Your task to perform on an android device: turn off priority inbox in the gmail app Image 0: 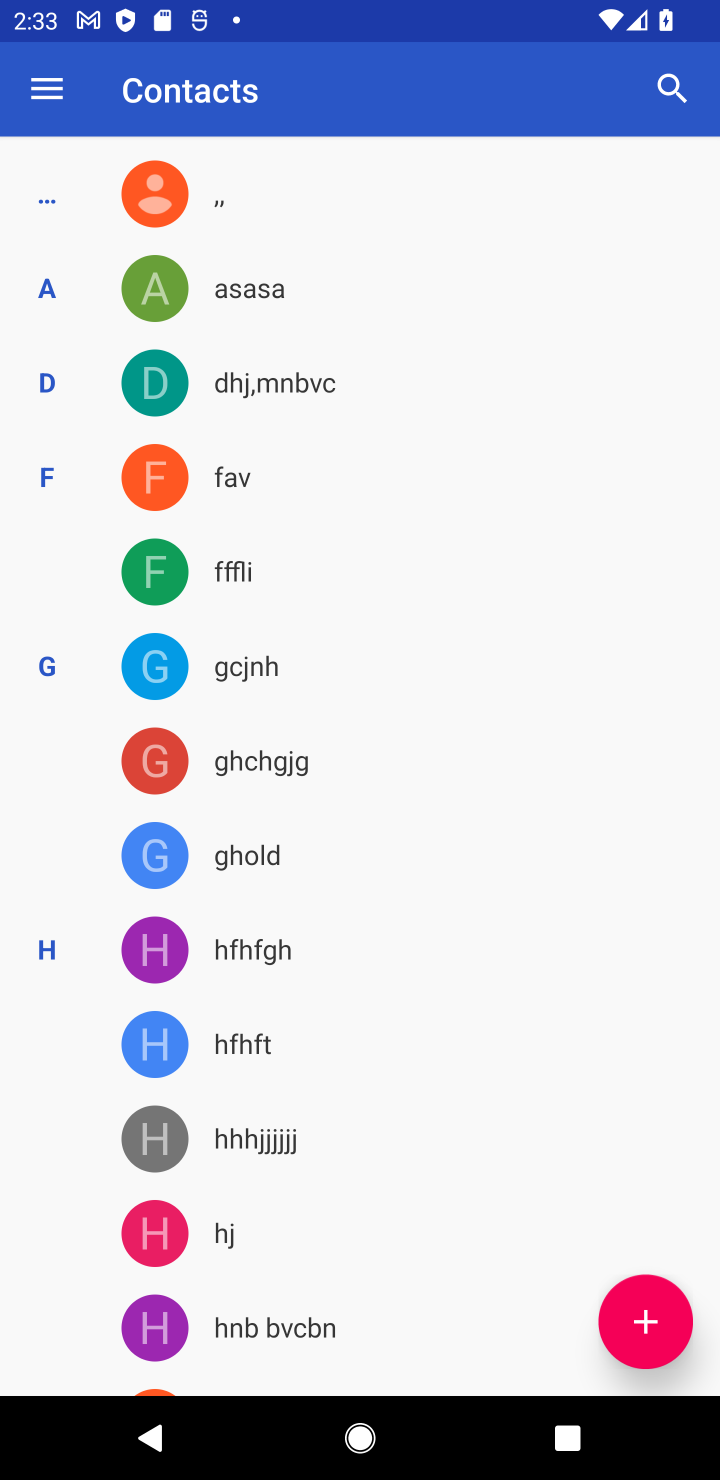
Step 0: press home button
Your task to perform on an android device: turn off priority inbox in the gmail app Image 1: 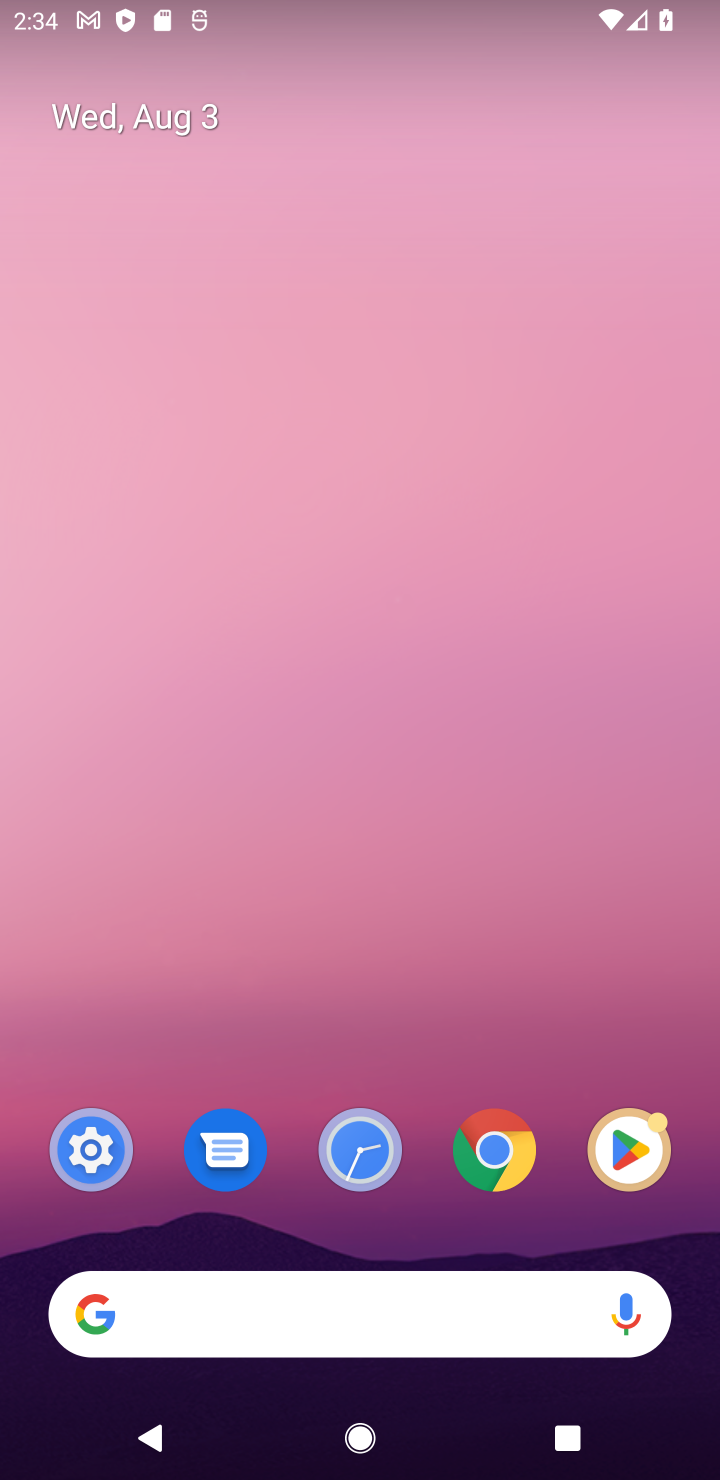
Step 1: drag from (348, 1081) to (384, 68)
Your task to perform on an android device: turn off priority inbox in the gmail app Image 2: 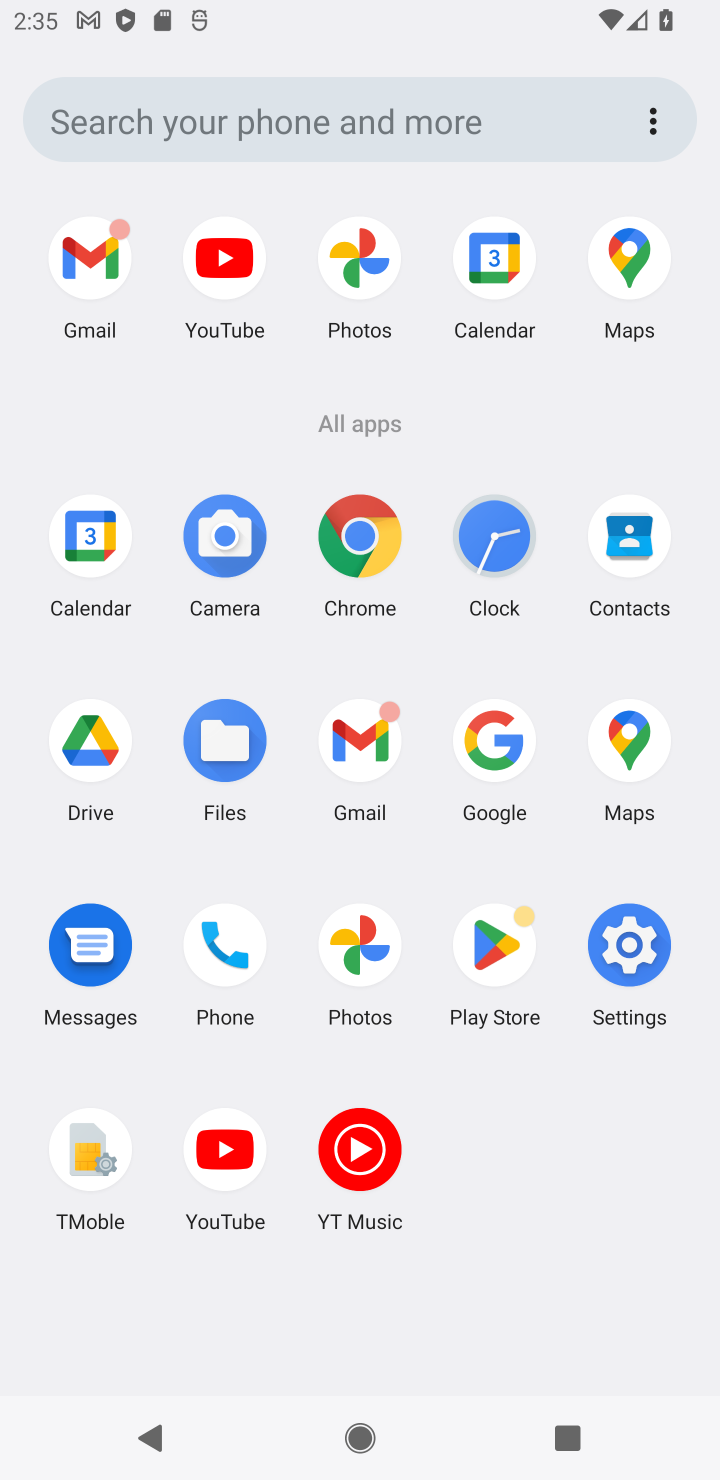
Step 2: click (374, 744)
Your task to perform on an android device: turn off priority inbox in the gmail app Image 3: 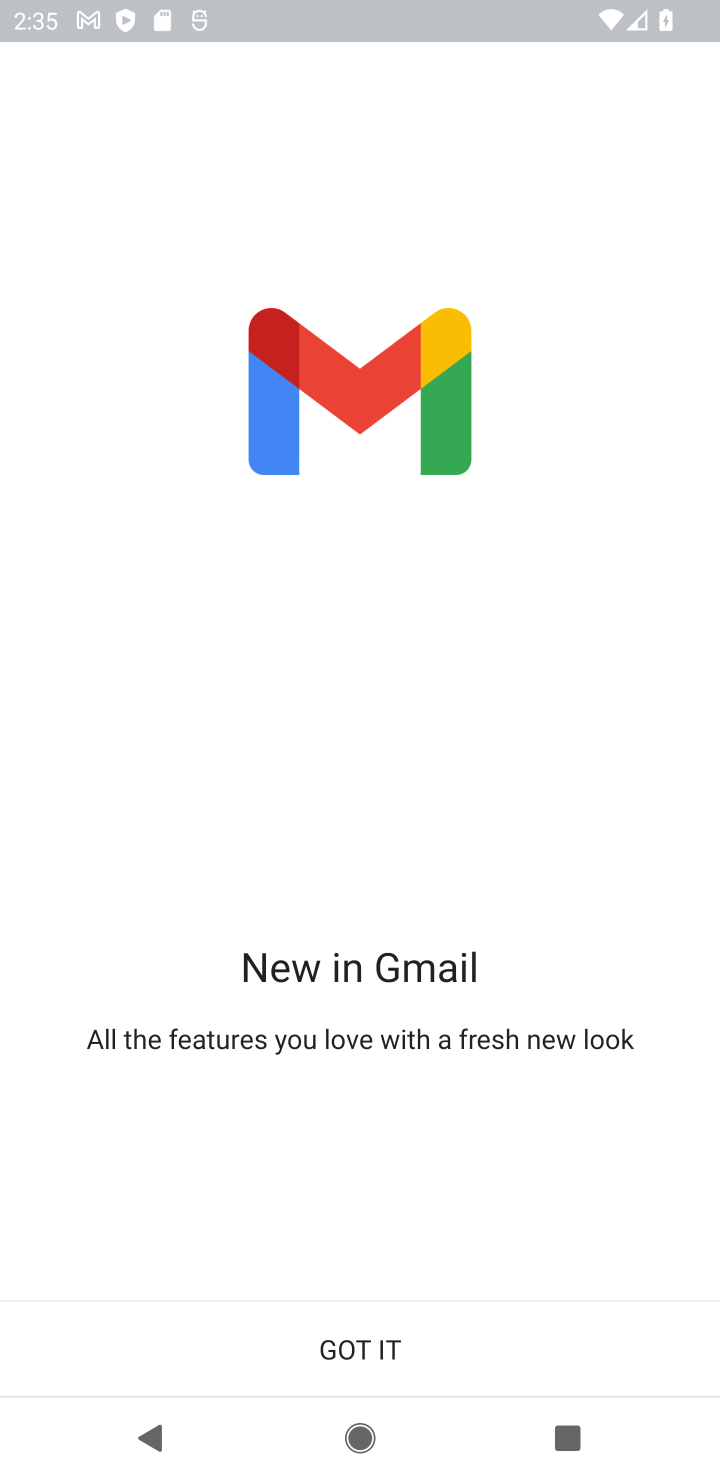
Step 3: click (350, 1322)
Your task to perform on an android device: turn off priority inbox in the gmail app Image 4: 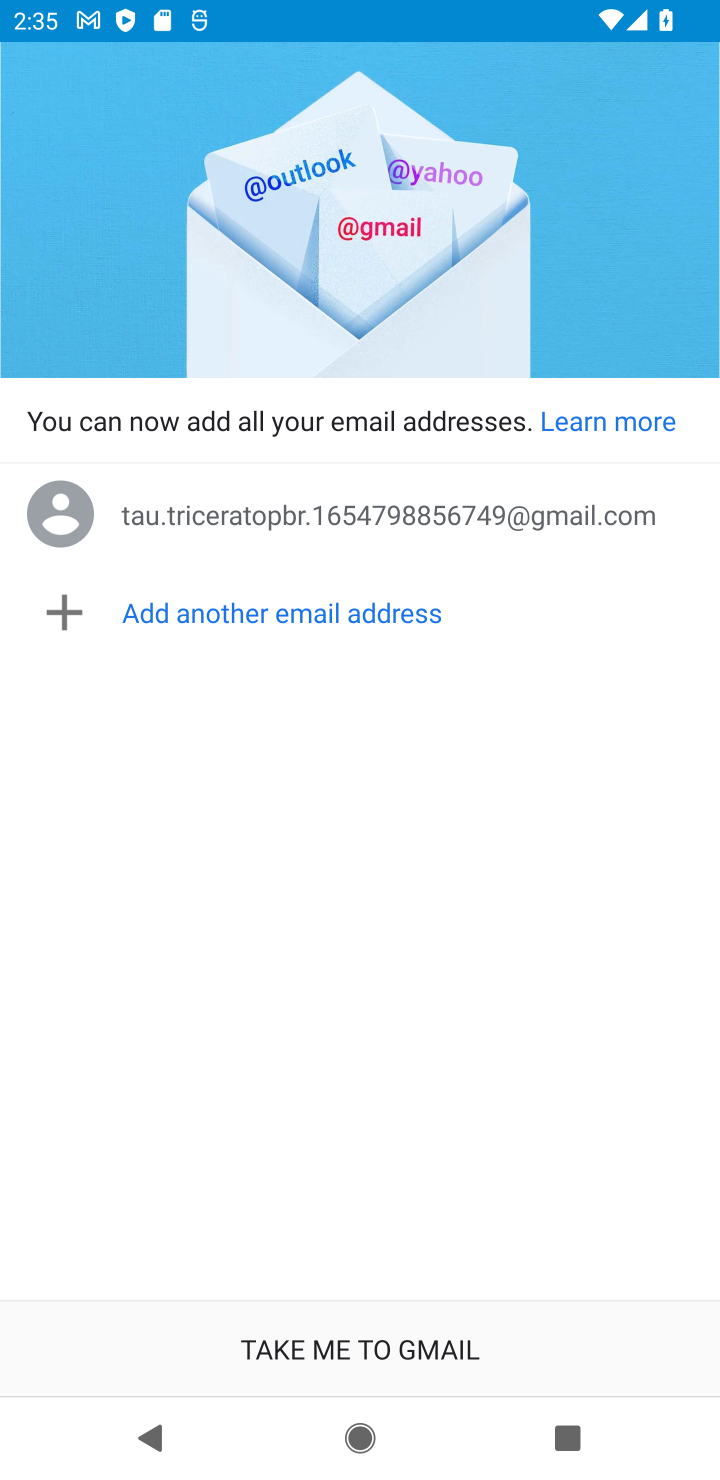
Step 4: click (376, 1336)
Your task to perform on an android device: turn off priority inbox in the gmail app Image 5: 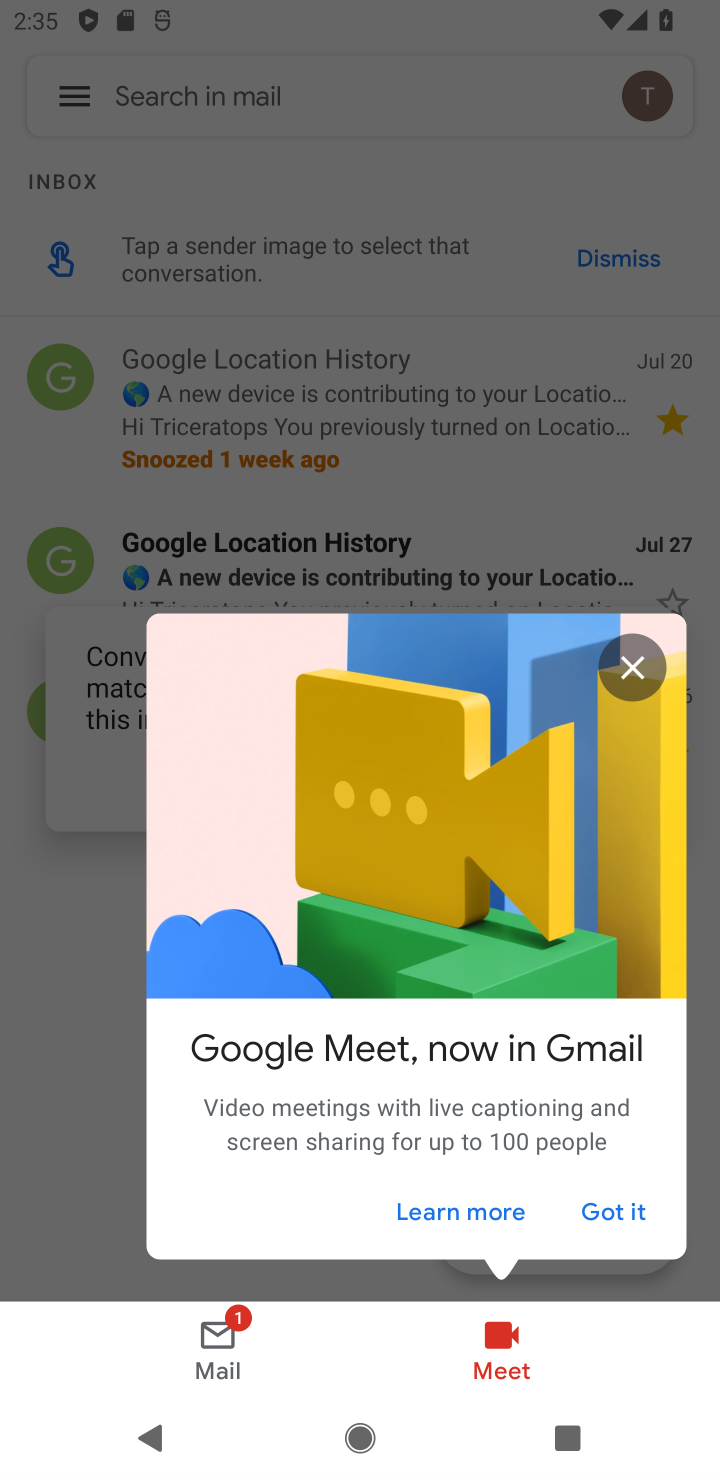
Step 5: click (626, 684)
Your task to perform on an android device: turn off priority inbox in the gmail app Image 6: 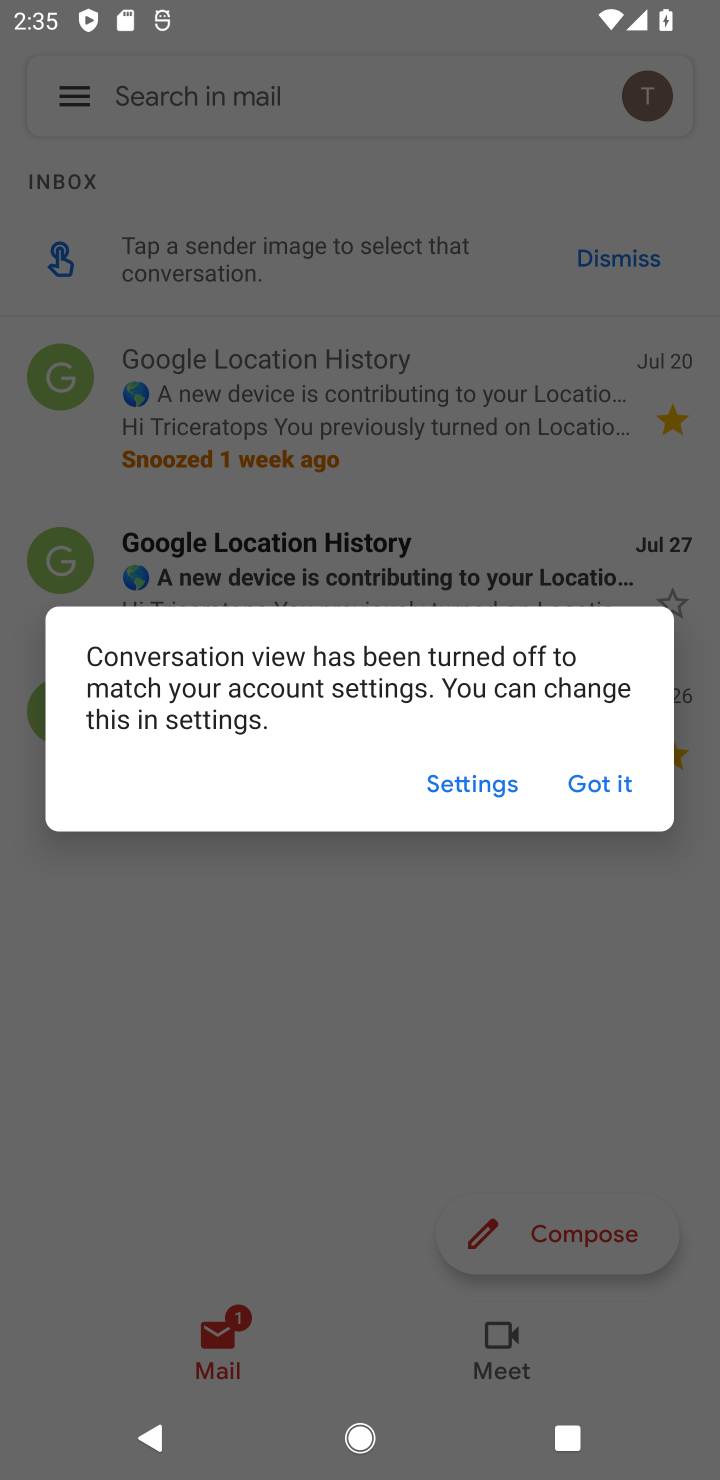
Step 6: click (585, 795)
Your task to perform on an android device: turn off priority inbox in the gmail app Image 7: 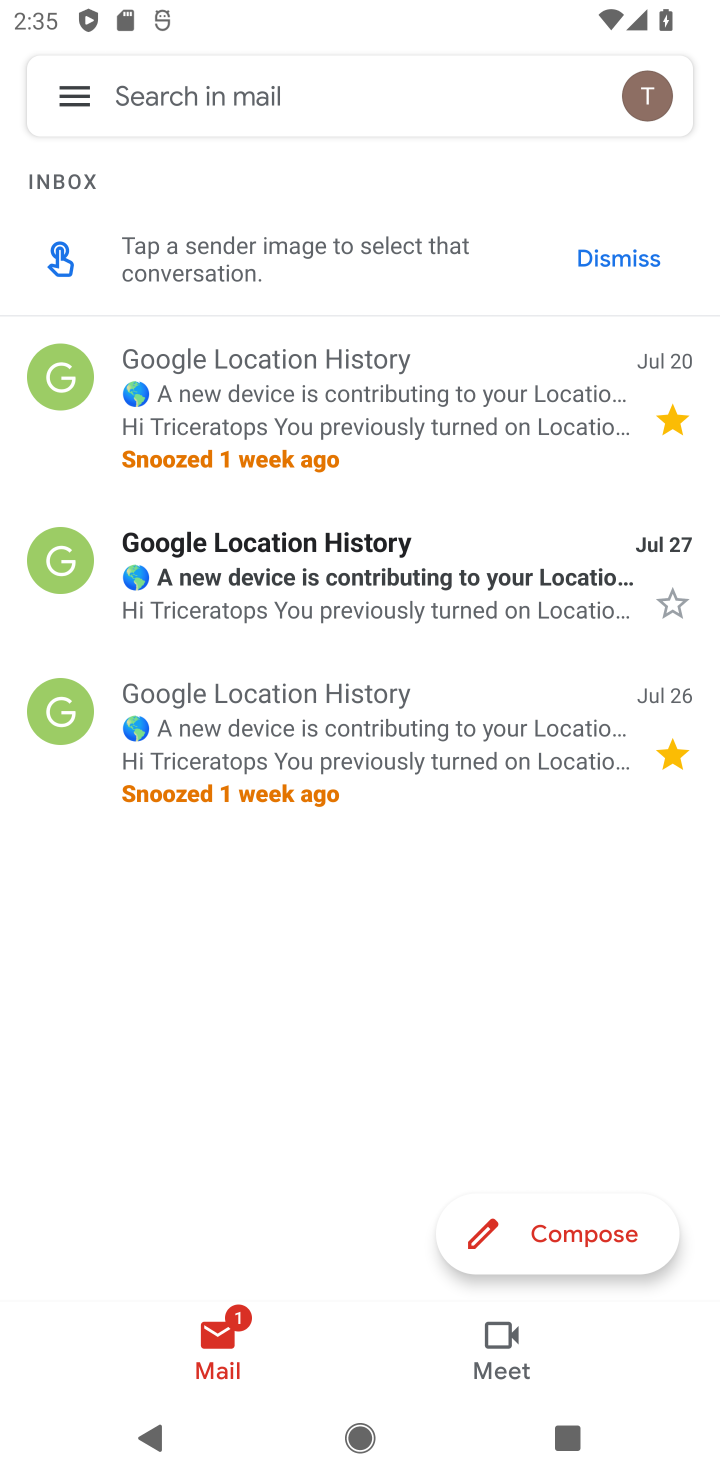
Step 7: click (75, 101)
Your task to perform on an android device: turn off priority inbox in the gmail app Image 8: 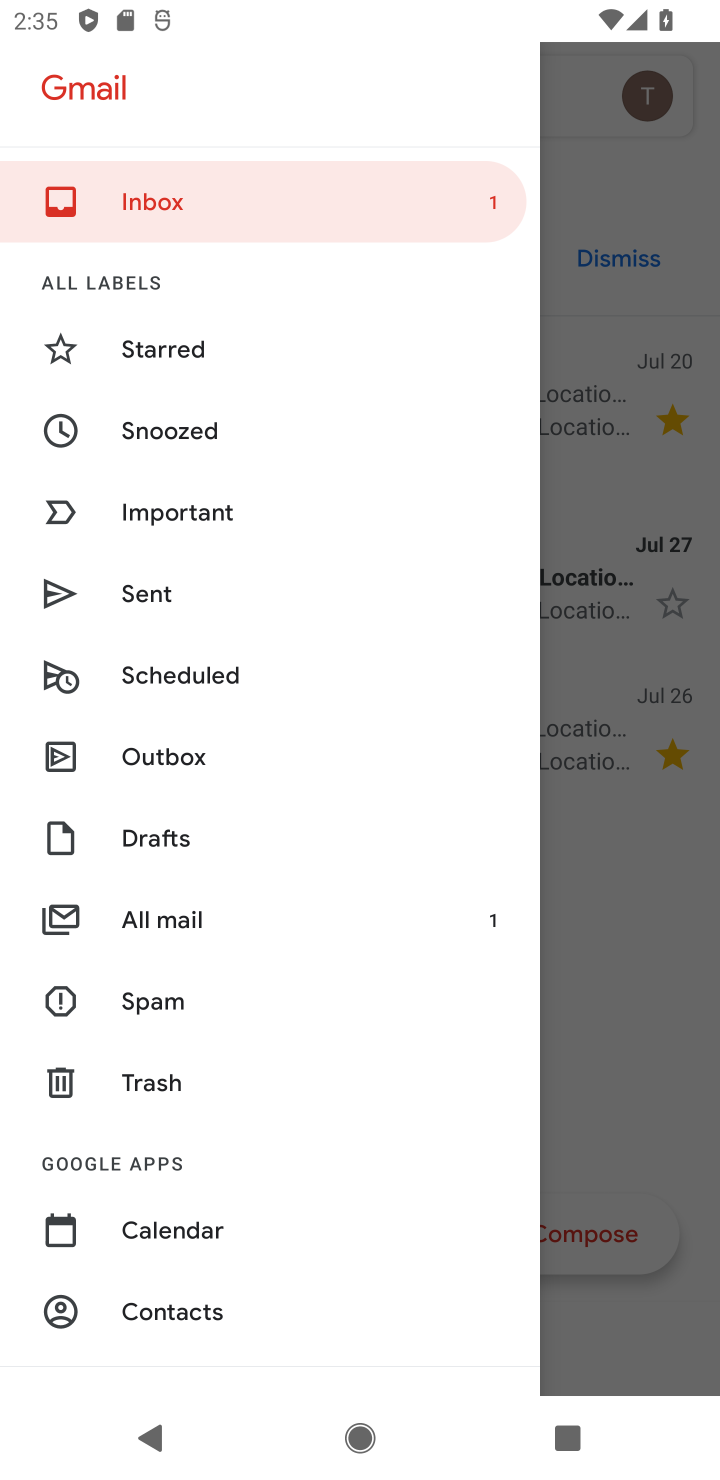
Step 8: drag from (167, 1219) to (186, 472)
Your task to perform on an android device: turn off priority inbox in the gmail app Image 9: 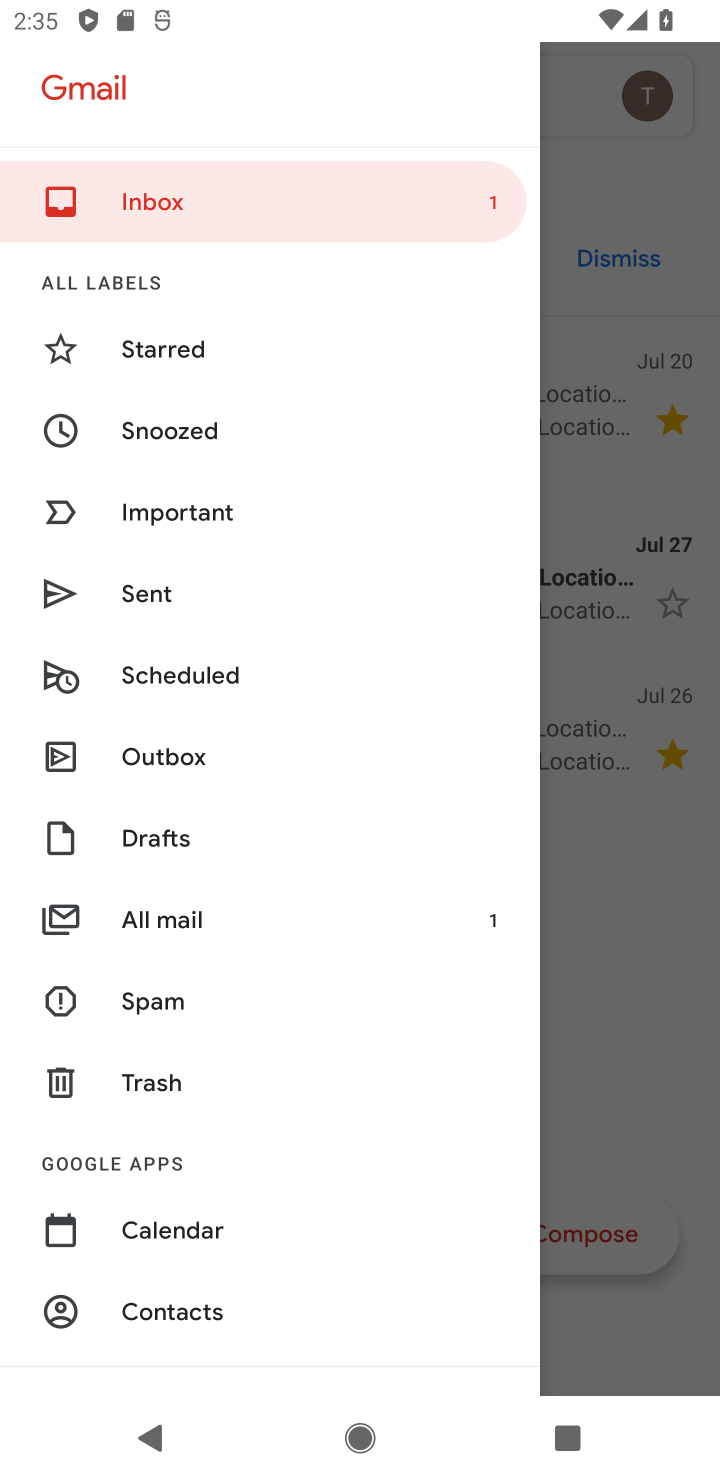
Step 9: drag from (247, 1227) to (251, 511)
Your task to perform on an android device: turn off priority inbox in the gmail app Image 10: 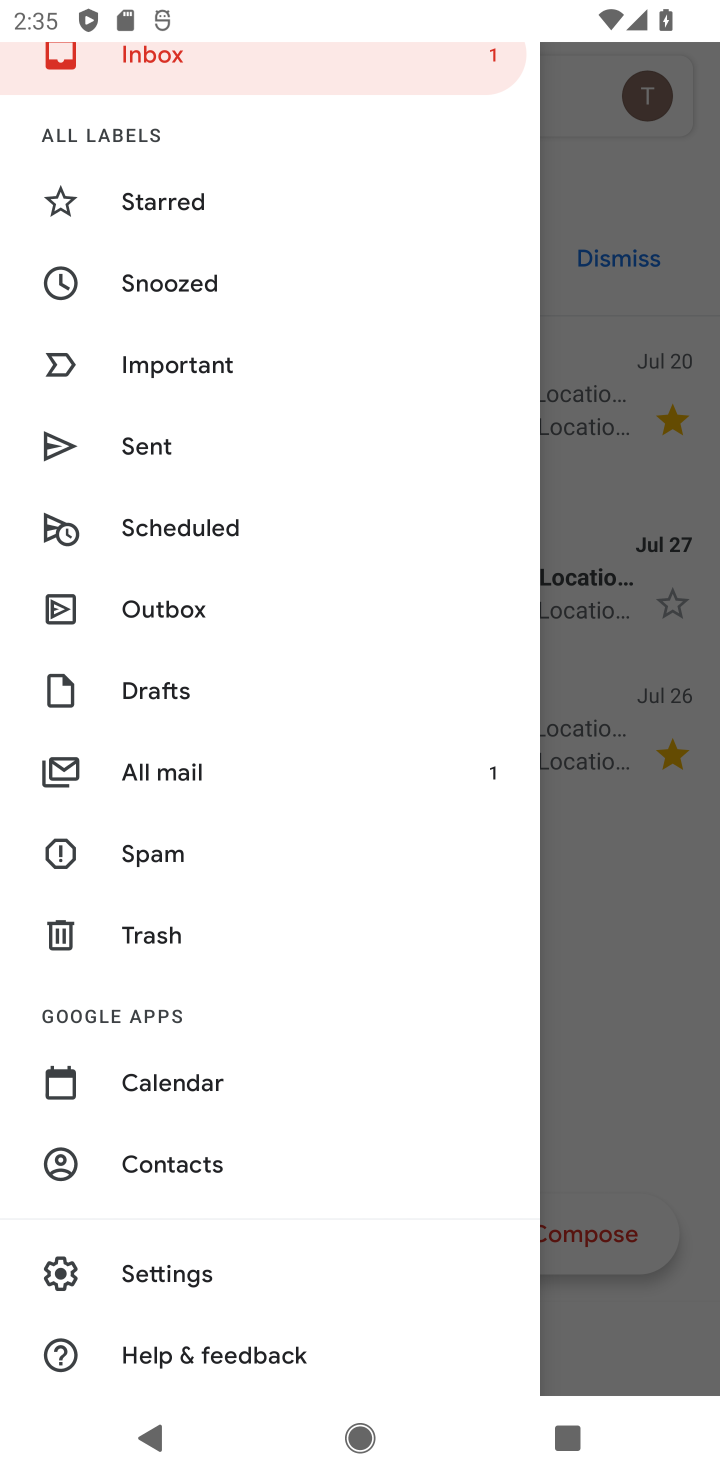
Step 10: click (187, 1260)
Your task to perform on an android device: turn off priority inbox in the gmail app Image 11: 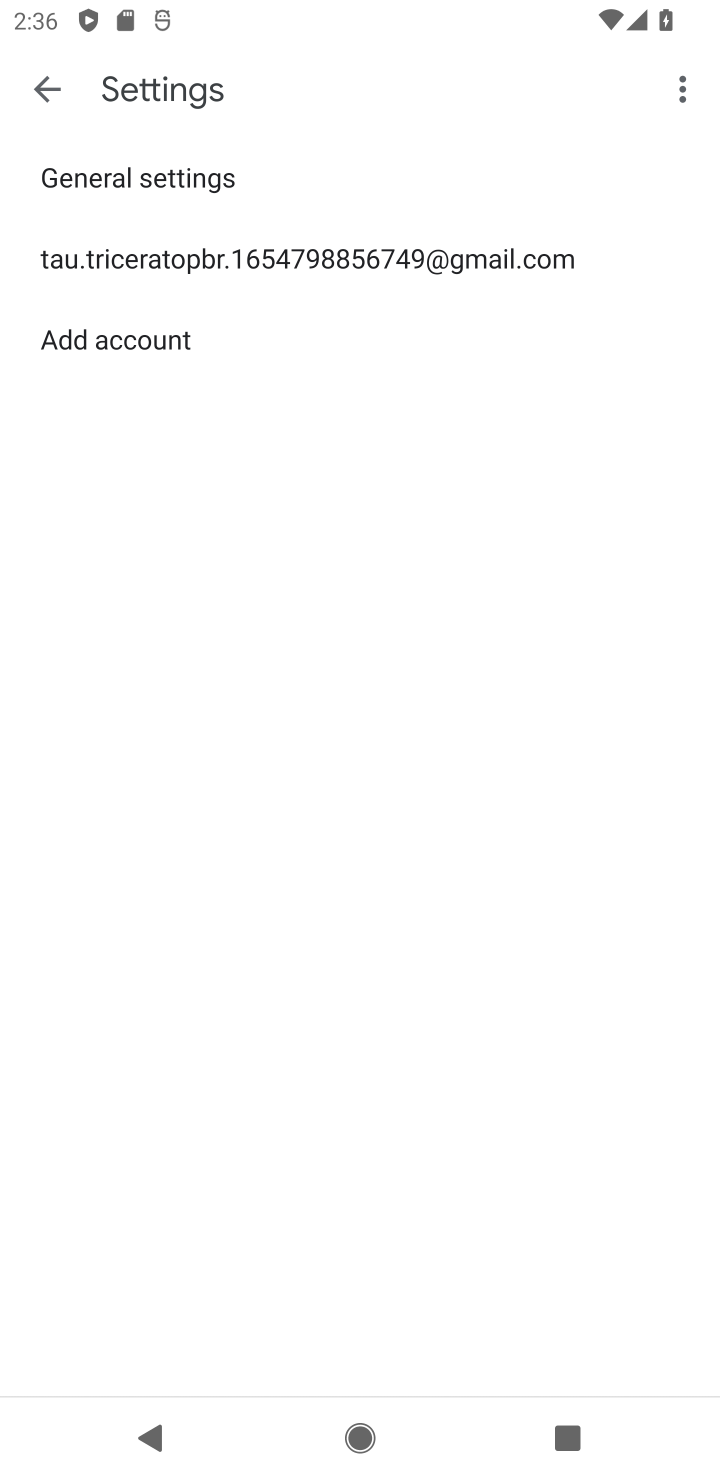
Step 11: click (257, 250)
Your task to perform on an android device: turn off priority inbox in the gmail app Image 12: 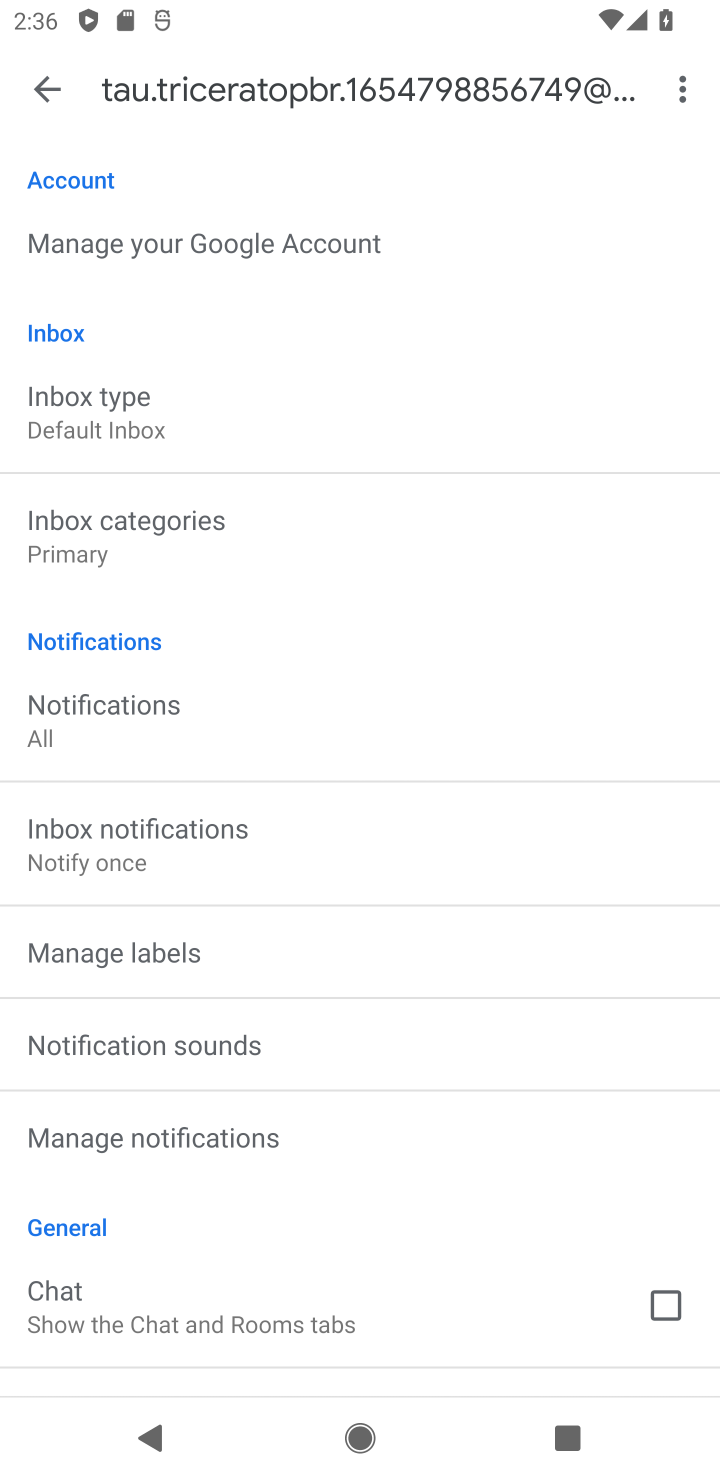
Step 12: click (134, 437)
Your task to perform on an android device: turn off priority inbox in the gmail app Image 13: 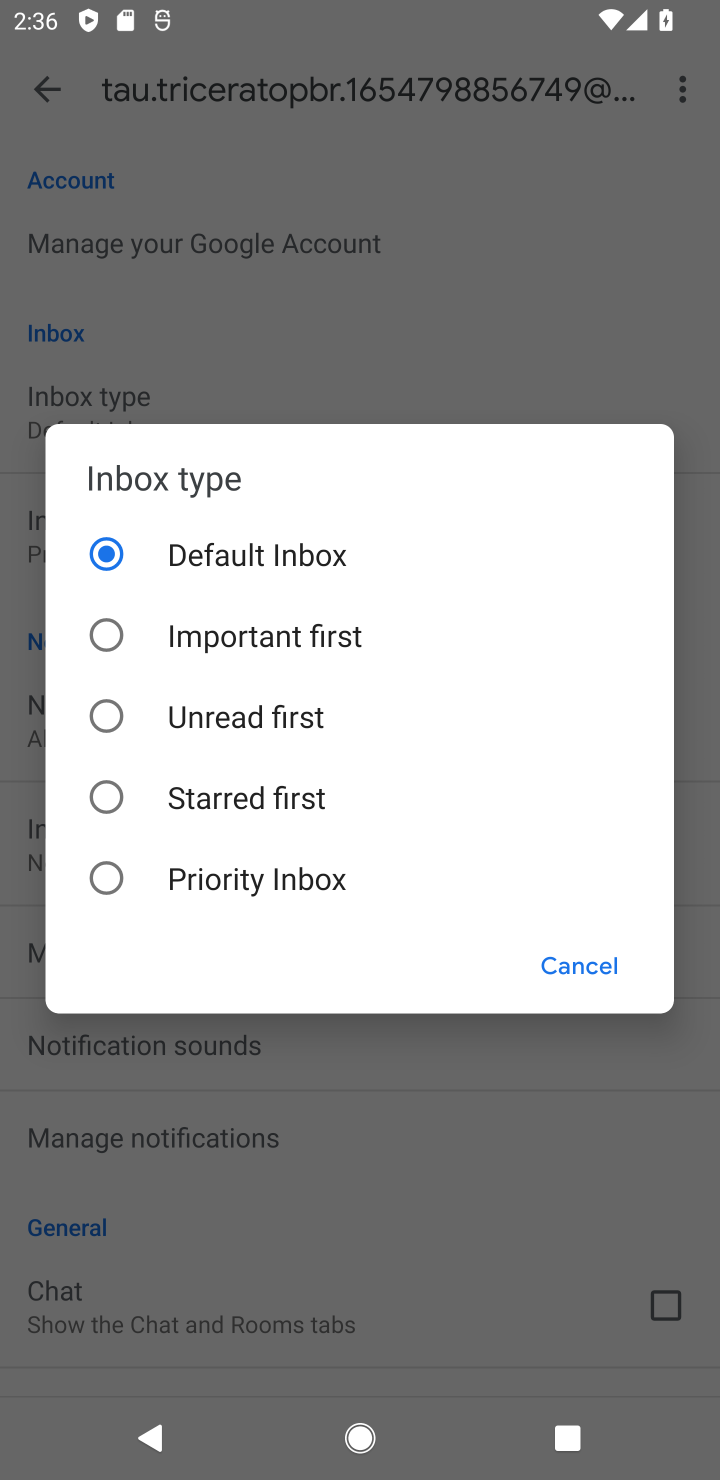
Step 13: click (226, 533)
Your task to perform on an android device: turn off priority inbox in the gmail app Image 14: 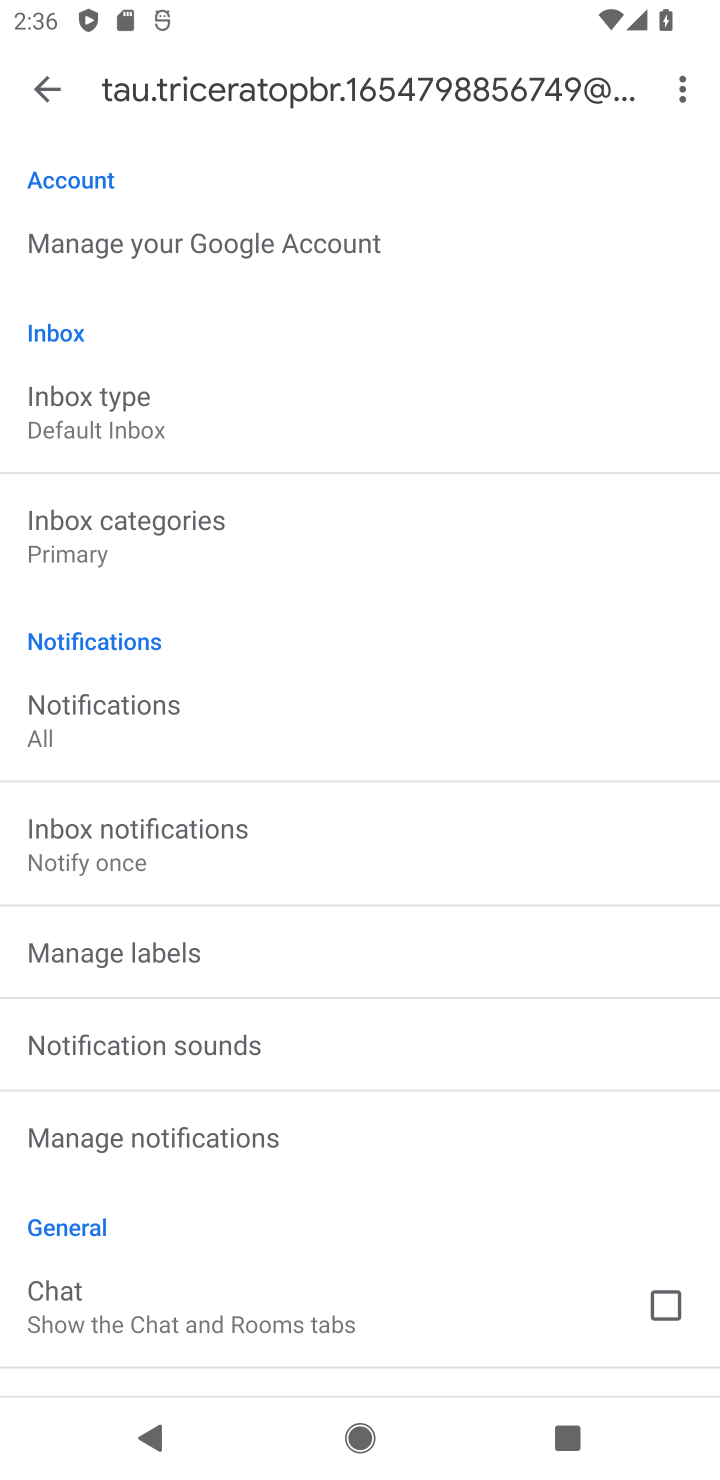
Step 14: task complete